Your task to perform on an android device: turn on location history Image 0: 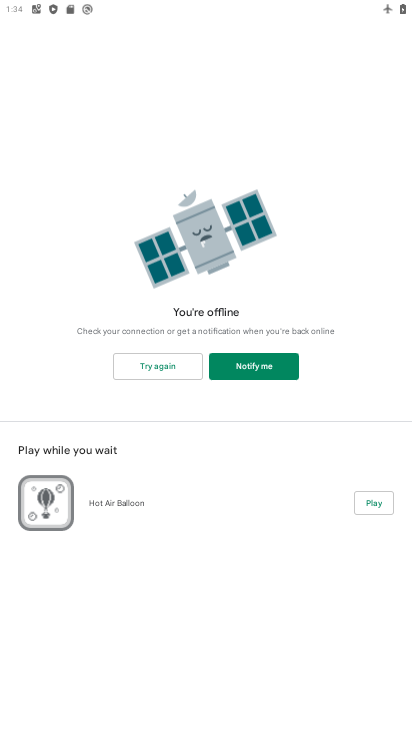
Step 0: press home button
Your task to perform on an android device: turn on location history Image 1: 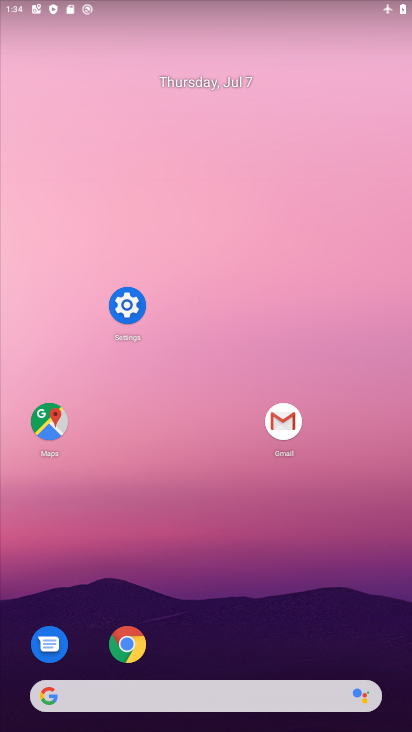
Step 1: click (121, 303)
Your task to perform on an android device: turn on location history Image 2: 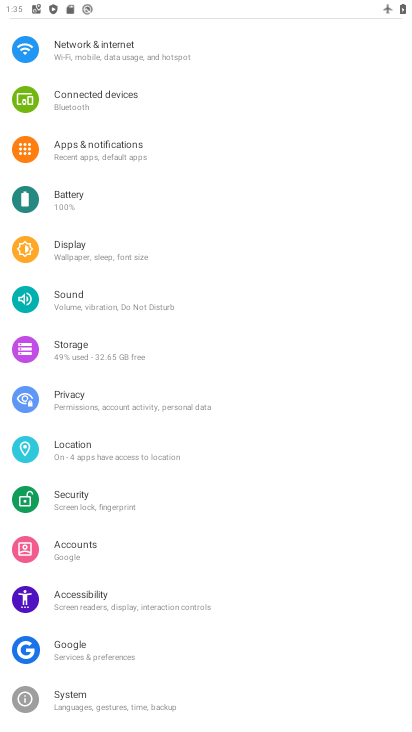
Step 2: click (100, 458)
Your task to perform on an android device: turn on location history Image 3: 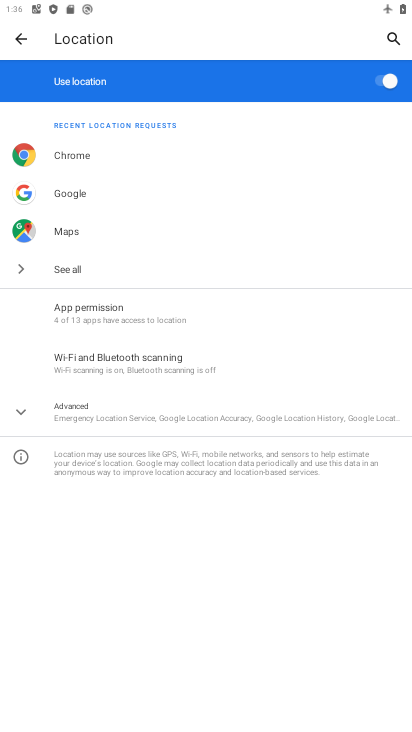
Step 3: click (53, 410)
Your task to perform on an android device: turn on location history Image 4: 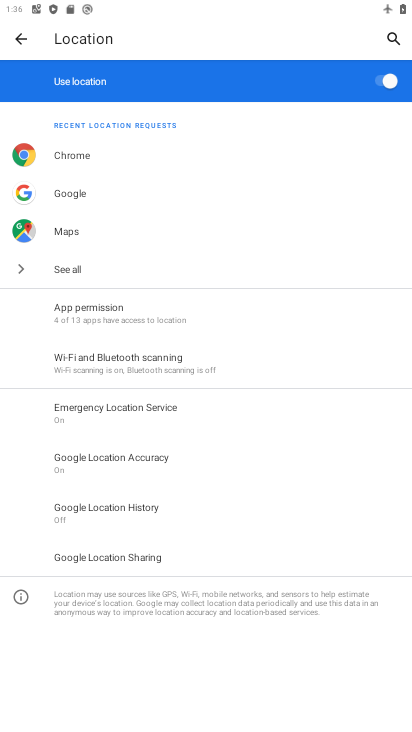
Step 4: click (123, 514)
Your task to perform on an android device: turn on location history Image 5: 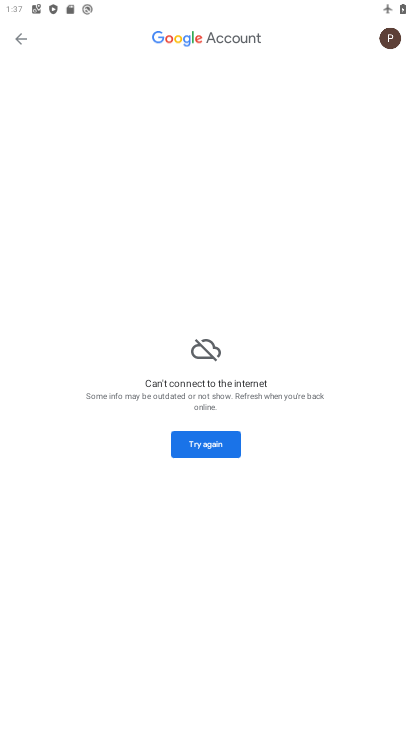
Step 5: task complete